Your task to perform on an android device: toggle pop-ups in chrome Image 0: 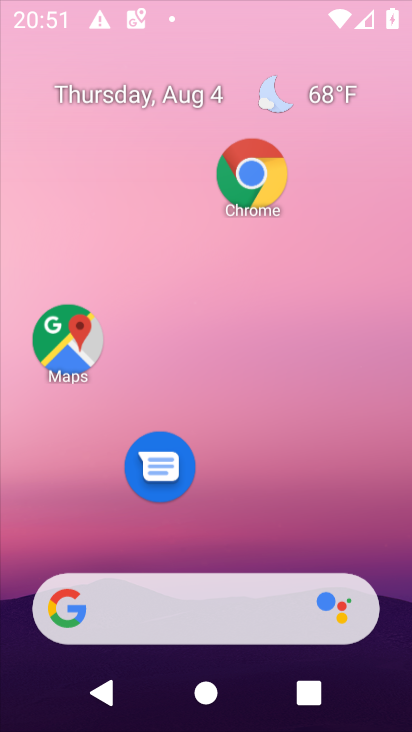
Step 0: press home button
Your task to perform on an android device: toggle pop-ups in chrome Image 1: 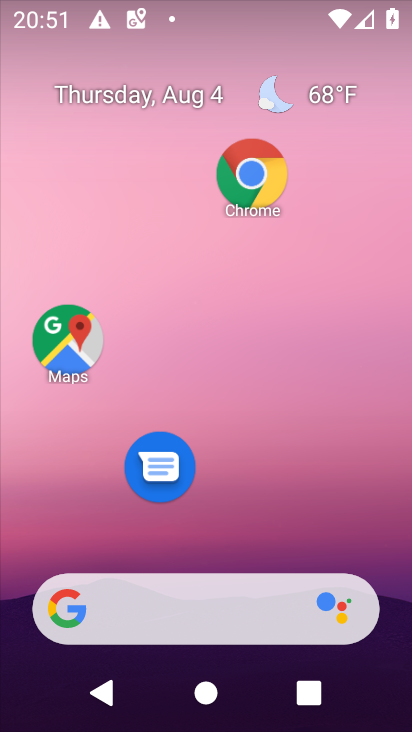
Step 1: click (272, 169)
Your task to perform on an android device: toggle pop-ups in chrome Image 2: 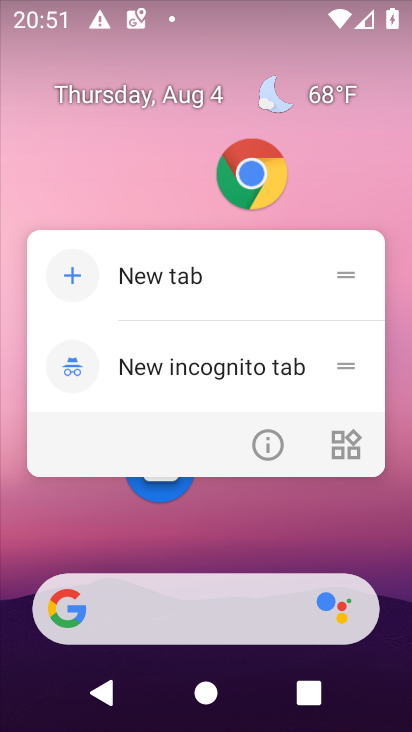
Step 2: click (256, 160)
Your task to perform on an android device: toggle pop-ups in chrome Image 3: 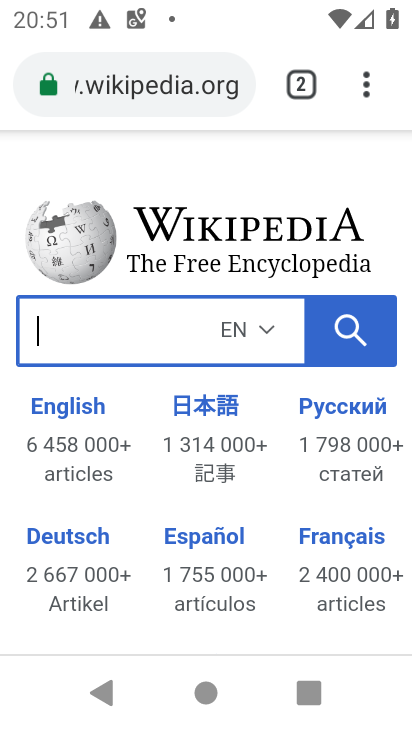
Step 3: drag from (359, 80) to (132, 519)
Your task to perform on an android device: toggle pop-ups in chrome Image 4: 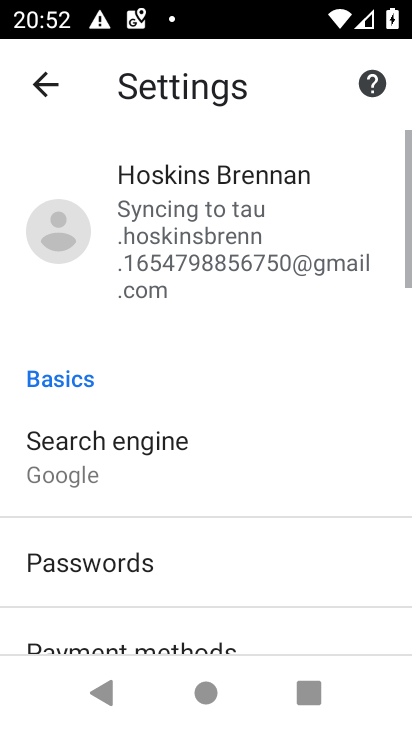
Step 4: drag from (171, 539) to (168, 81)
Your task to perform on an android device: toggle pop-ups in chrome Image 5: 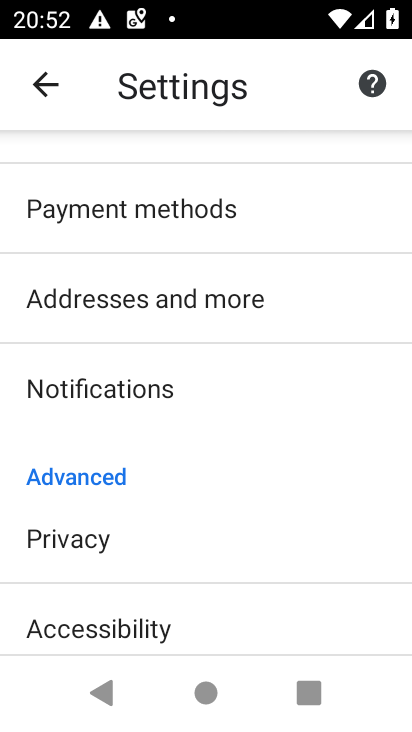
Step 5: drag from (152, 510) to (167, 181)
Your task to perform on an android device: toggle pop-ups in chrome Image 6: 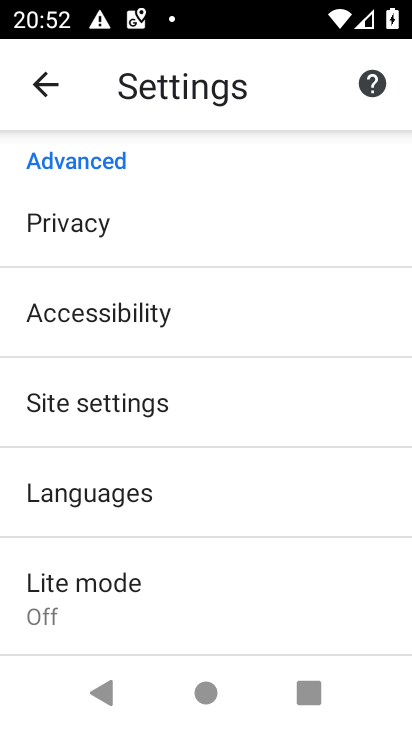
Step 6: click (146, 416)
Your task to perform on an android device: toggle pop-ups in chrome Image 7: 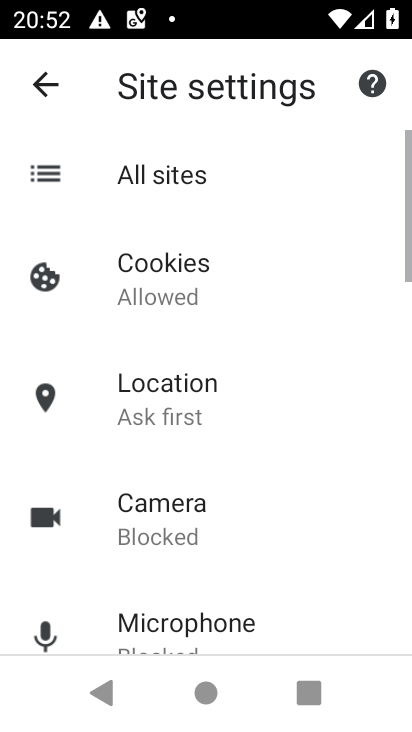
Step 7: drag from (133, 510) to (136, 96)
Your task to perform on an android device: toggle pop-ups in chrome Image 8: 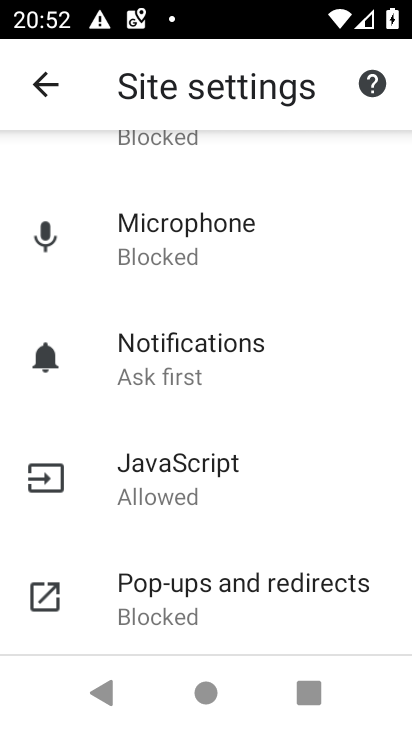
Step 8: click (136, 616)
Your task to perform on an android device: toggle pop-ups in chrome Image 9: 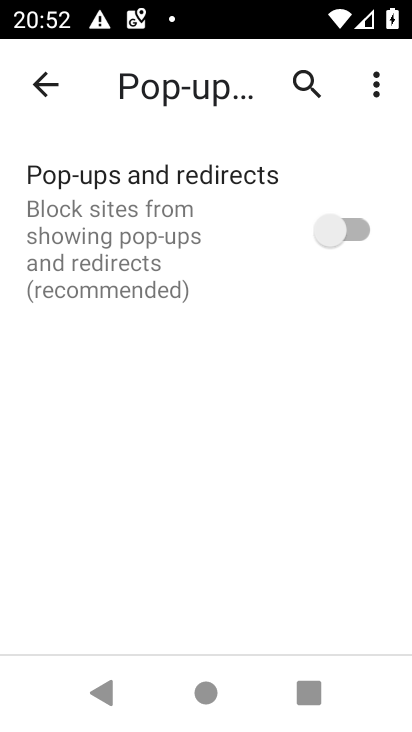
Step 9: click (182, 199)
Your task to perform on an android device: toggle pop-ups in chrome Image 10: 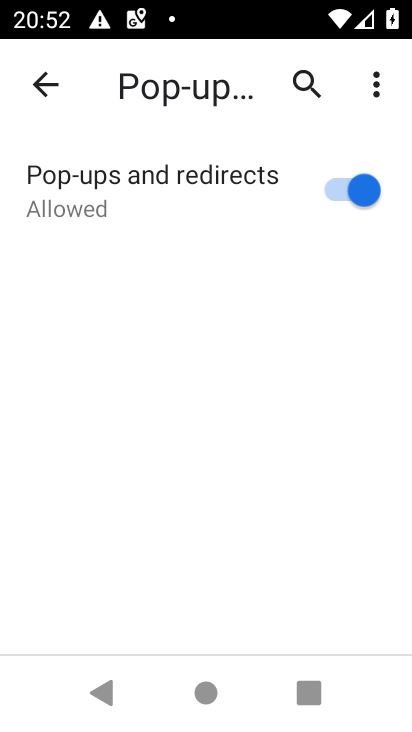
Step 10: task complete